Your task to perform on an android device: turn off smart reply in the gmail app Image 0: 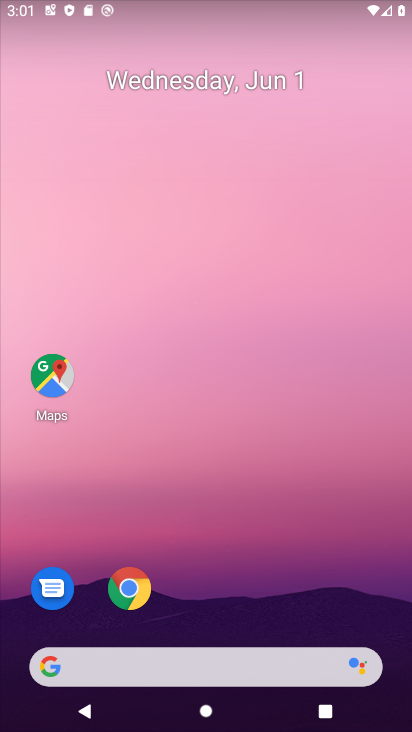
Step 0: drag from (314, 591) to (290, 46)
Your task to perform on an android device: turn off smart reply in the gmail app Image 1: 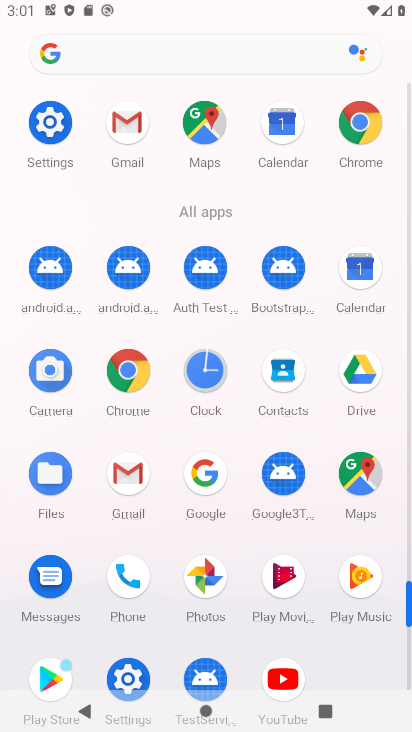
Step 1: click (130, 465)
Your task to perform on an android device: turn off smart reply in the gmail app Image 2: 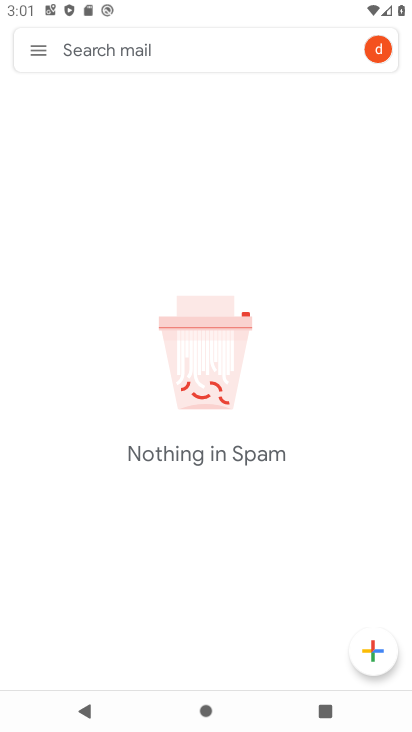
Step 2: click (35, 57)
Your task to perform on an android device: turn off smart reply in the gmail app Image 3: 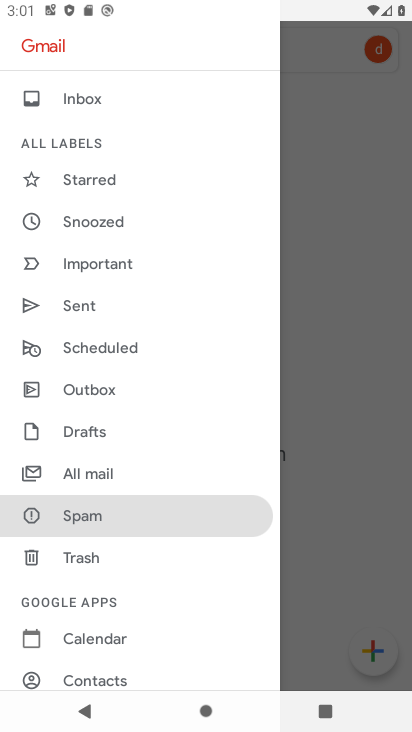
Step 3: drag from (153, 598) to (164, 370)
Your task to perform on an android device: turn off smart reply in the gmail app Image 4: 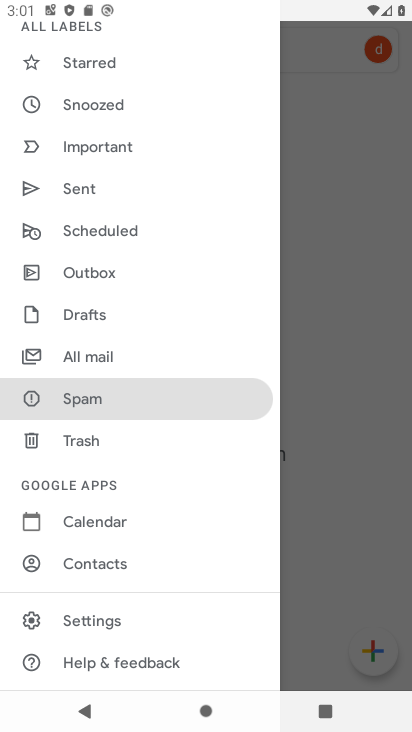
Step 4: click (91, 621)
Your task to perform on an android device: turn off smart reply in the gmail app Image 5: 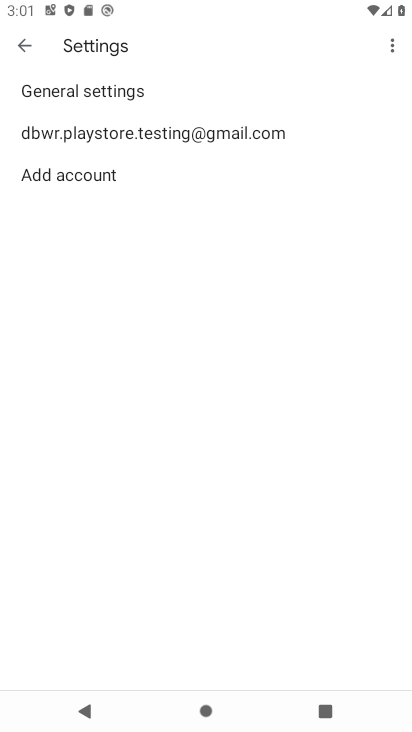
Step 5: click (194, 134)
Your task to perform on an android device: turn off smart reply in the gmail app Image 6: 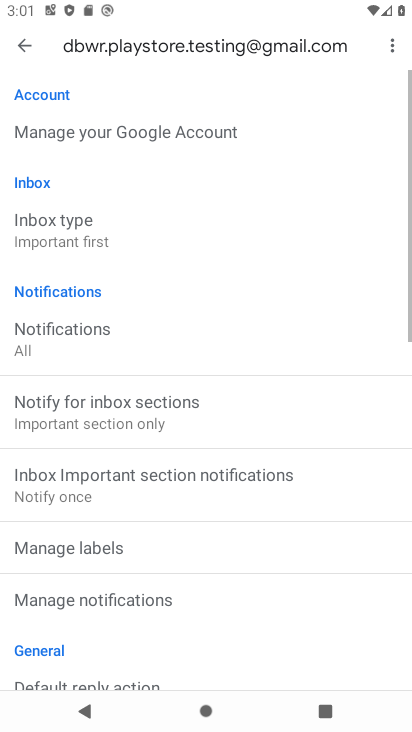
Step 6: drag from (284, 523) to (283, 6)
Your task to perform on an android device: turn off smart reply in the gmail app Image 7: 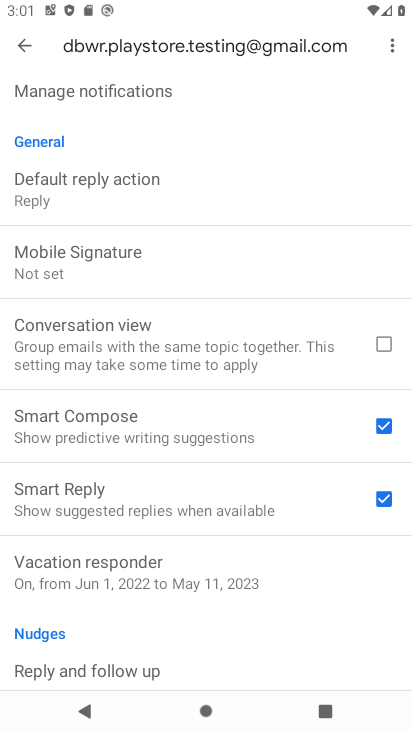
Step 7: click (383, 500)
Your task to perform on an android device: turn off smart reply in the gmail app Image 8: 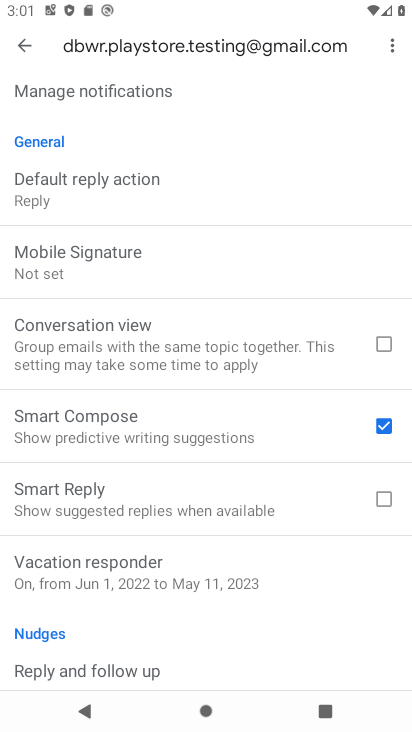
Step 8: task complete